Your task to perform on an android device: set default search engine in the chrome app Image 0: 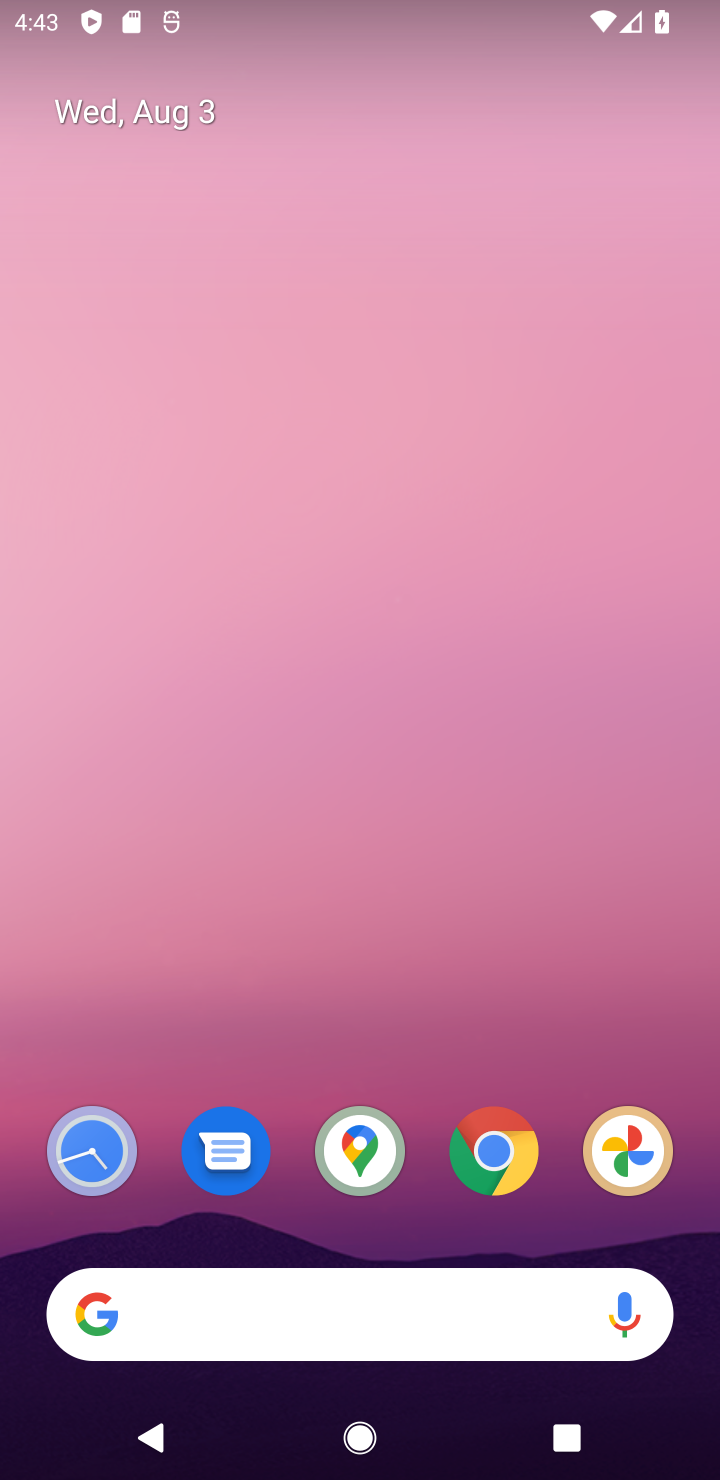
Step 0: click (322, 694)
Your task to perform on an android device: set default search engine in the chrome app Image 1: 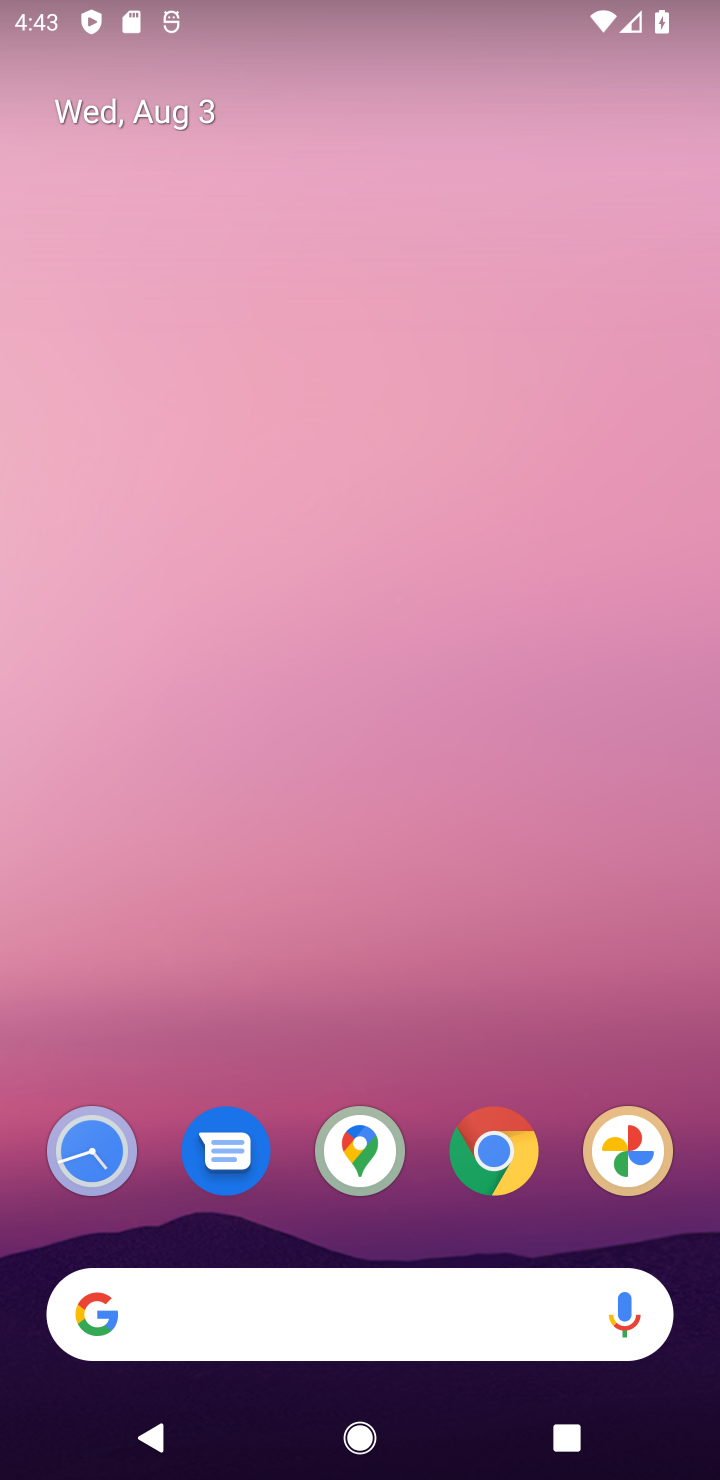
Step 1: drag from (425, 1334) to (342, 188)
Your task to perform on an android device: set default search engine in the chrome app Image 2: 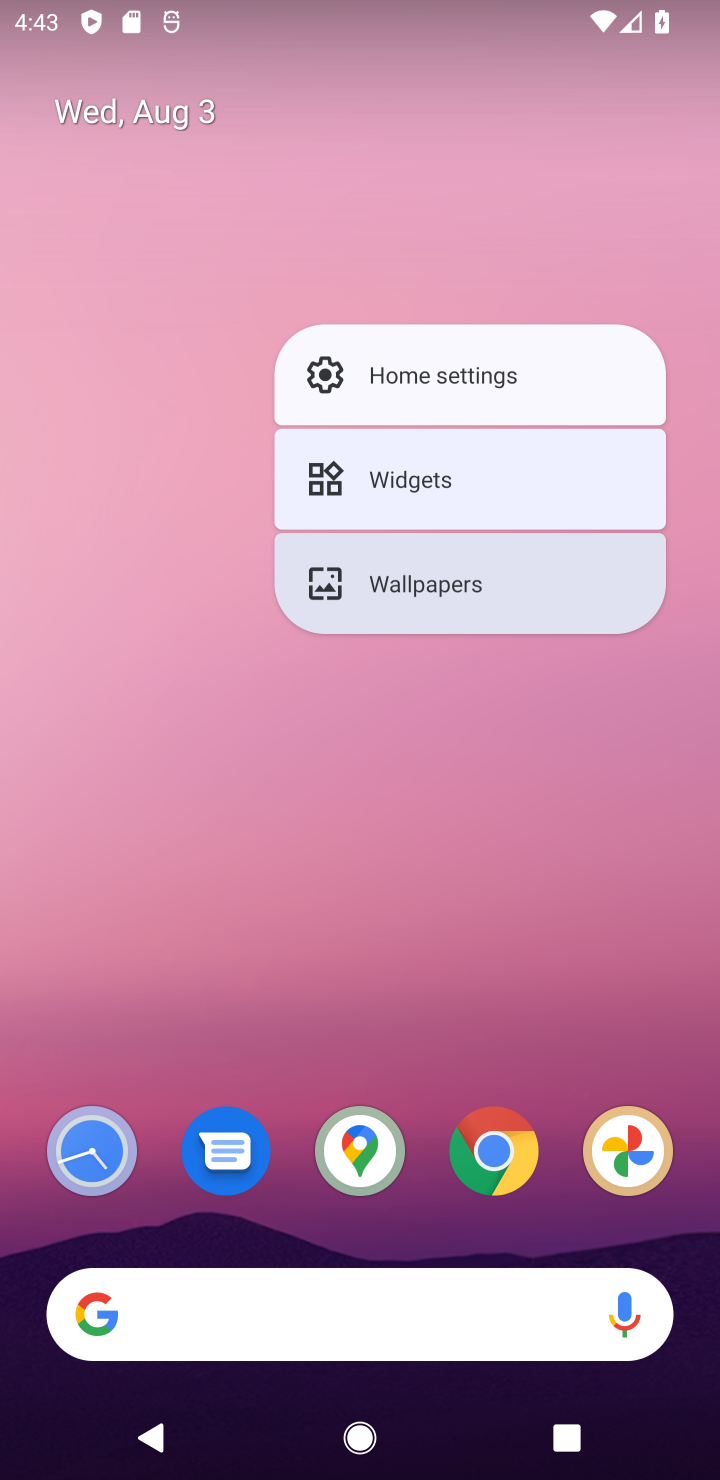
Step 2: drag from (361, 766) to (185, 38)
Your task to perform on an android device: set default search engine in the chrome app Image 3: 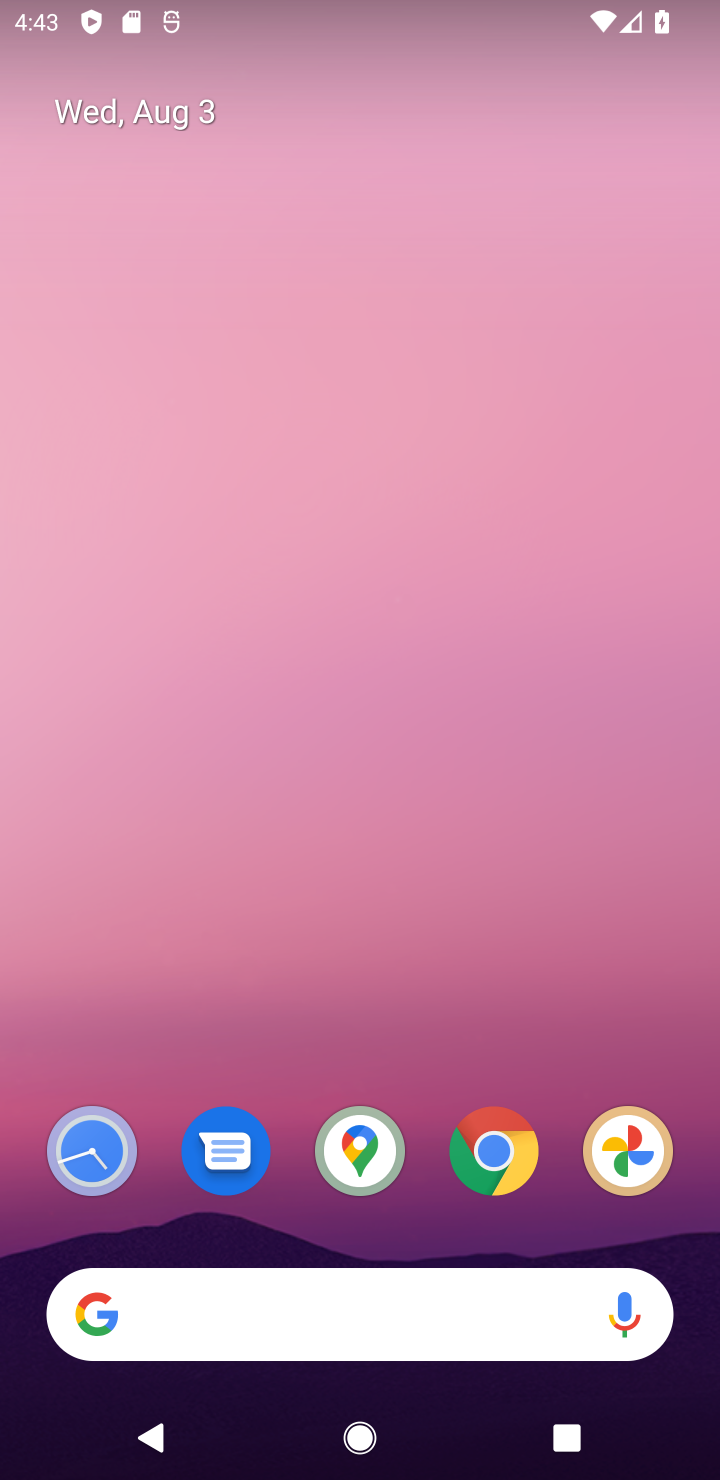
Step 3: click (349, 188)
Your task to perform on an android device: set default search engine in the chrome app Image 4: 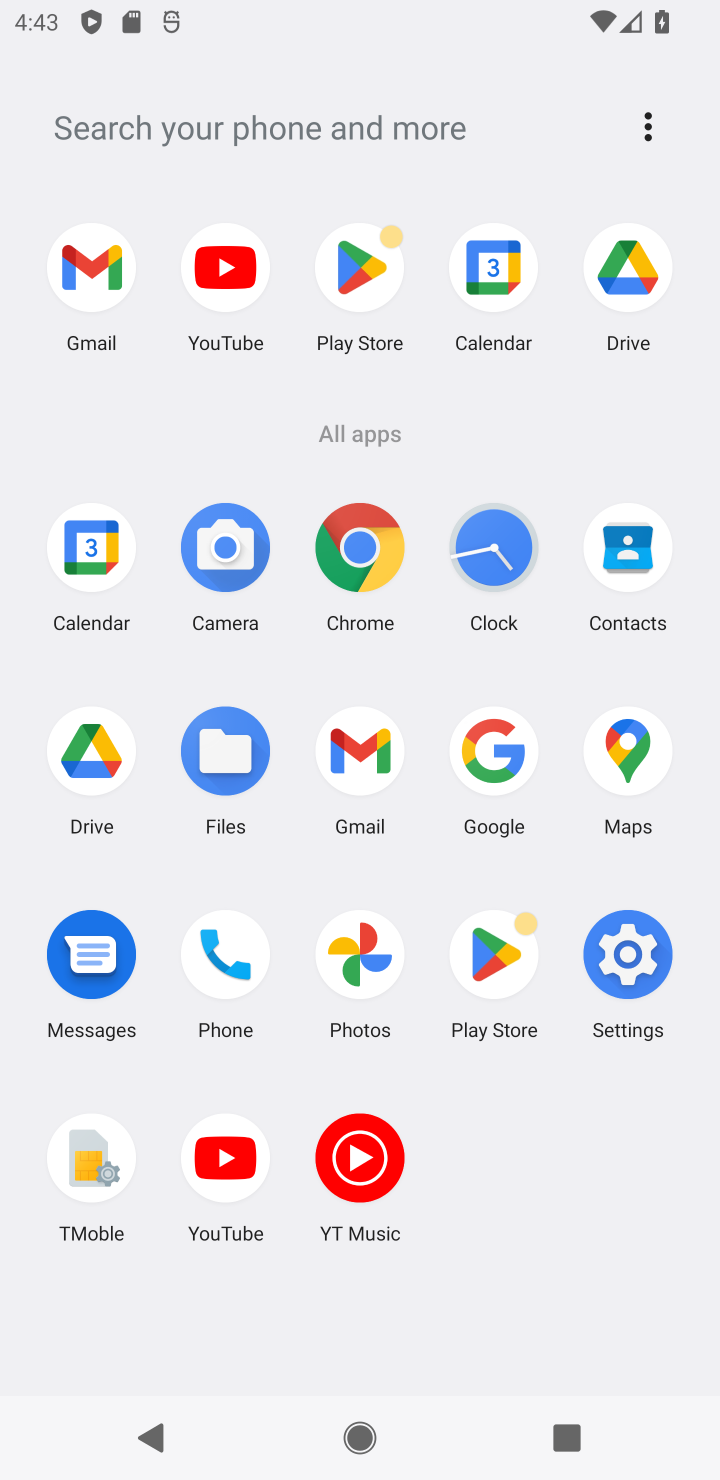
Step 4: click (339, 540)
Your task to perform on an android device: set default search engine in the chrome app Image 5: 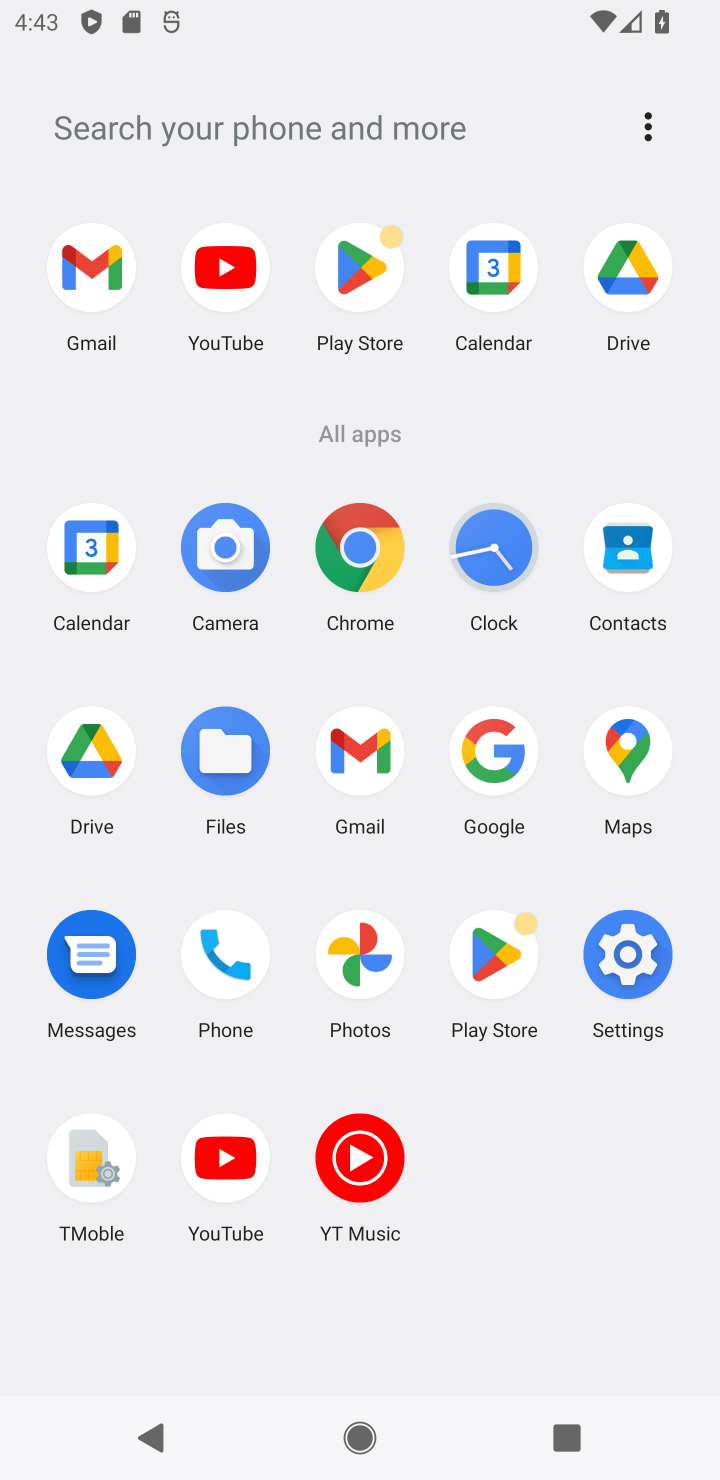
Step 5: click (366, 577)
Your task to perform on an android device: set default search engine in the chrome app Image 6: 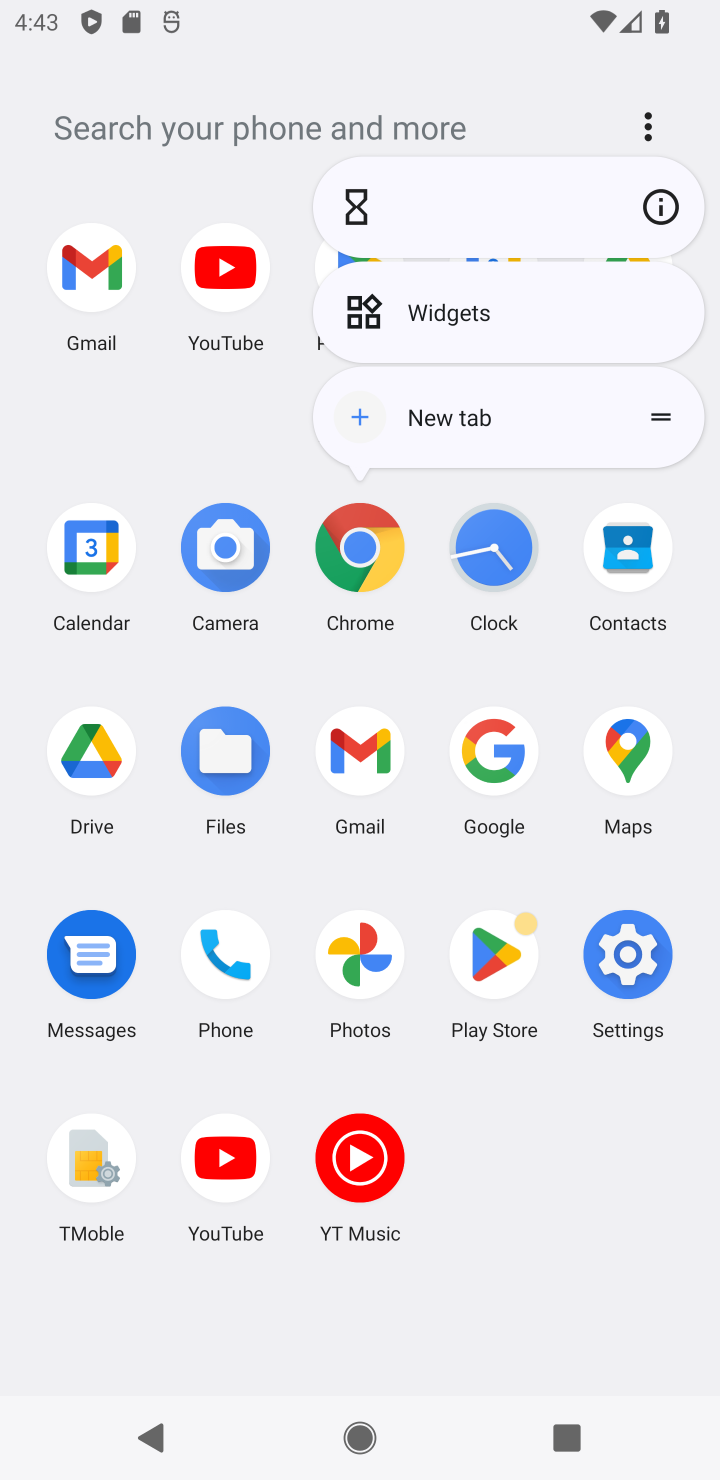
Step 6: click (368, 548)
Your task to perform on an android device: set default search engine in the chrome app Image 7: 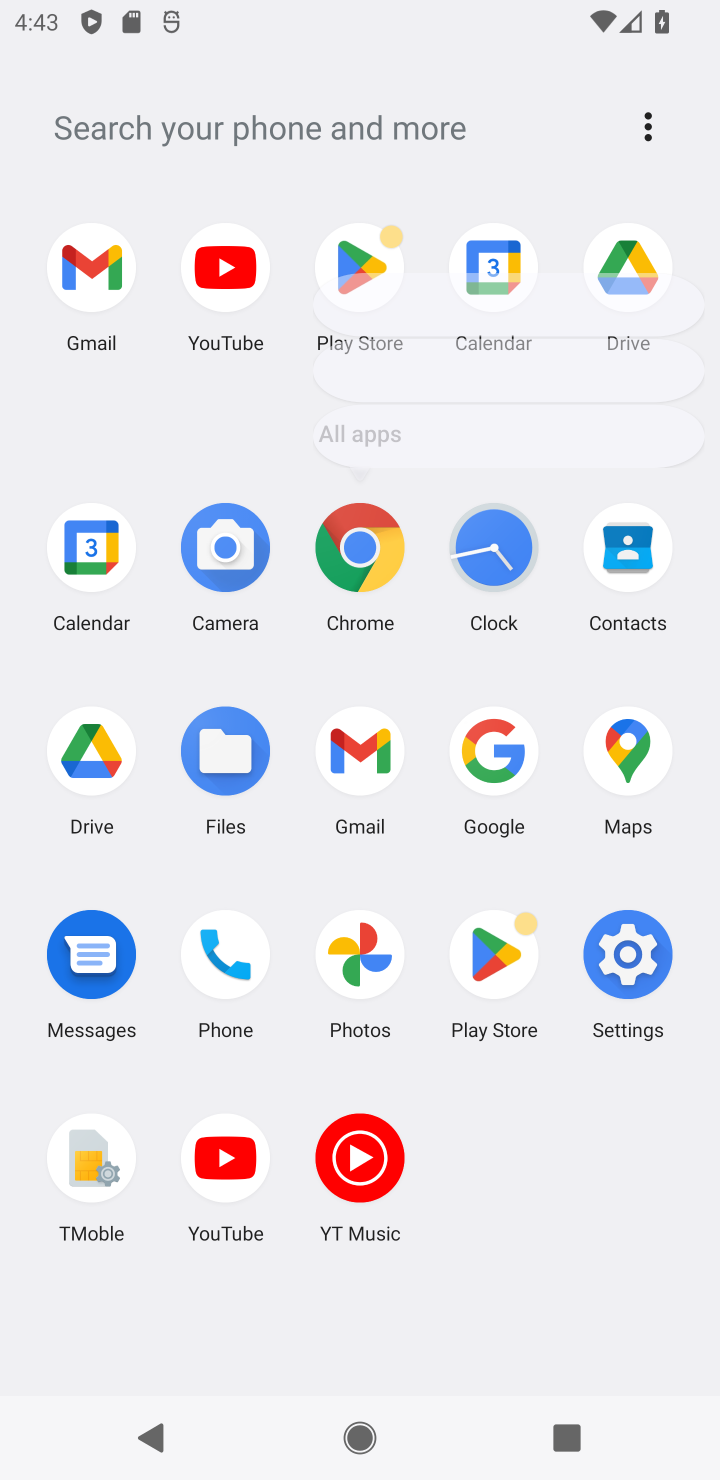
Step 7: click (370, 542)
Your task to perform on an android device: set default search engine in the chrome app Image 8: 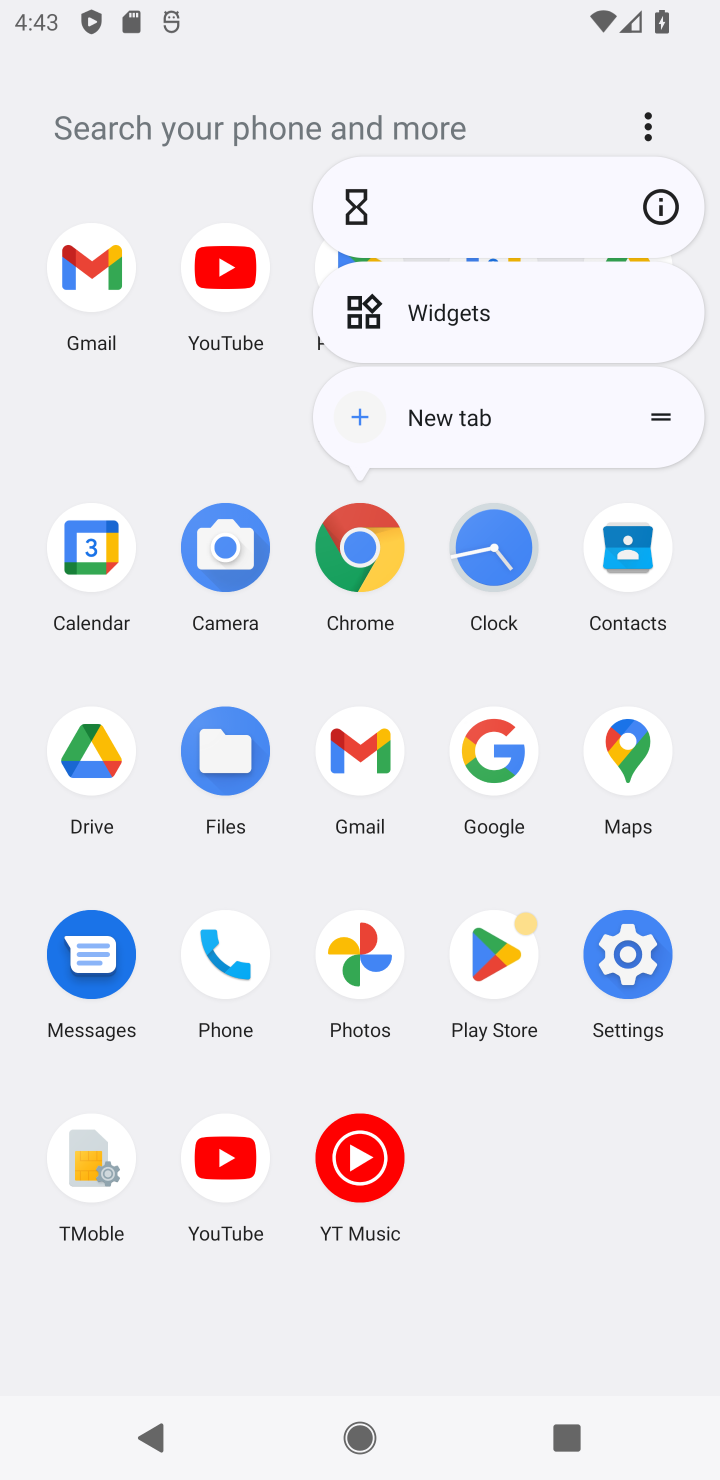
Step 8: click (370, 542)
Your task to perform on an android device: set default search engine in the chrome app Image 9: 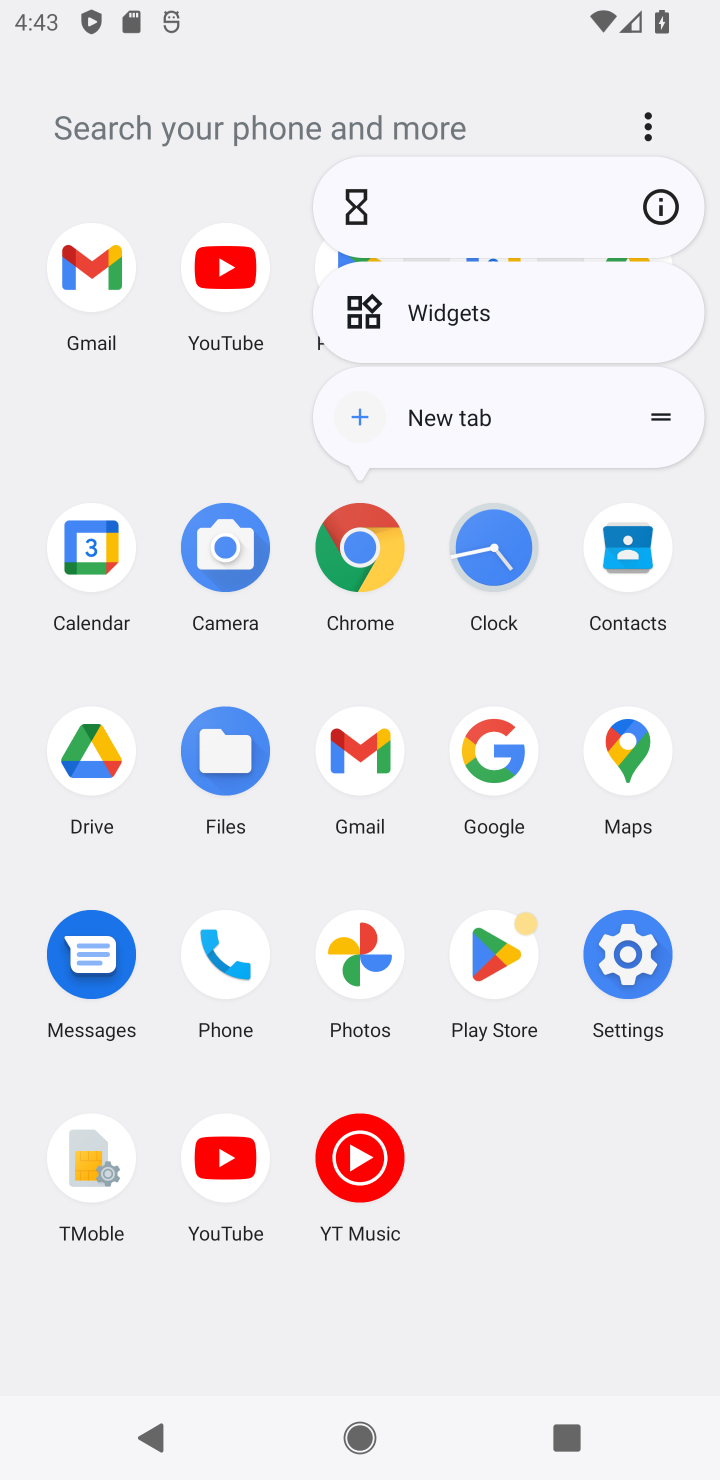
Step 9: click (423, 404)
Your task to perform on an android device: set default search engine in the chrome app Image 10: 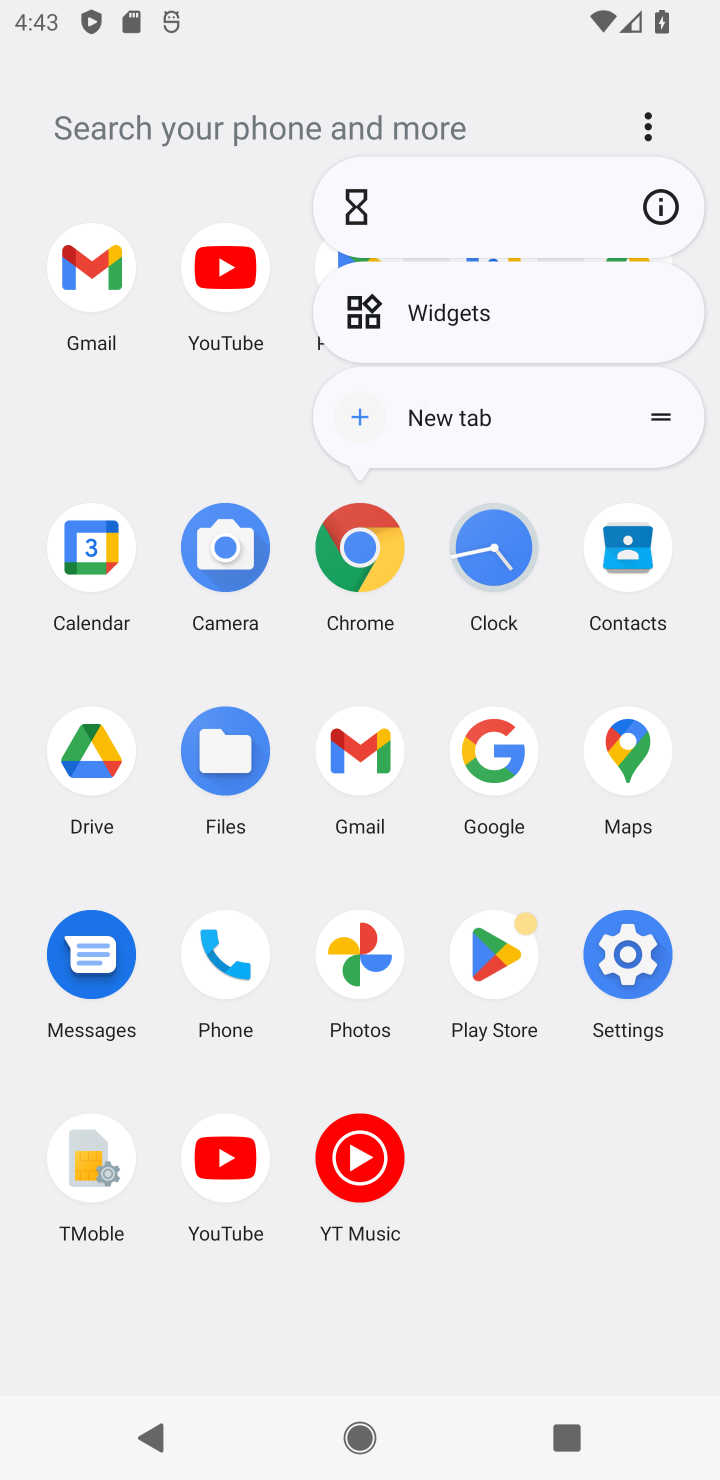
Step 10: click (454, 418)
Your task to perform on an android device: set default search engine in the chrome app Image 11: 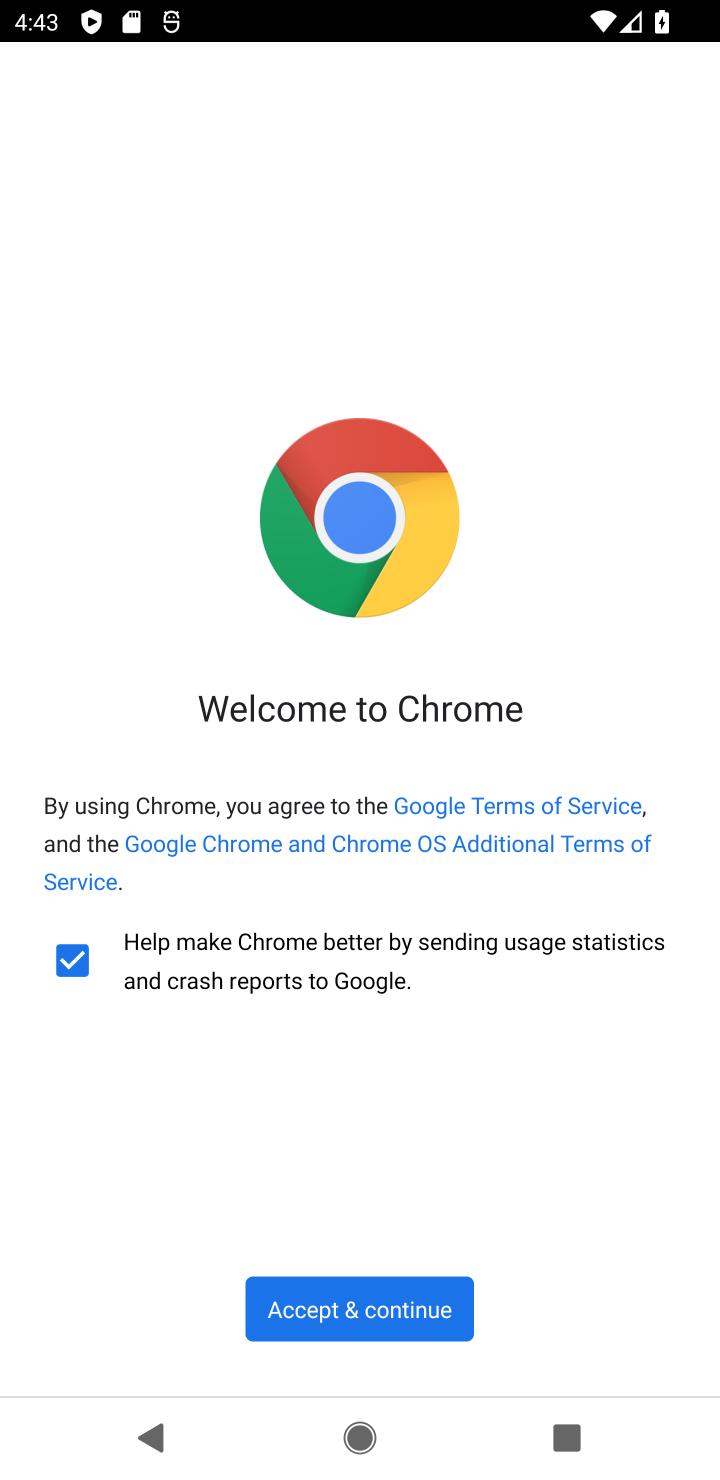
Step 11: click (413, 1313)
Your task to perform on an android device: set default search engine in the chrome app Image 12: 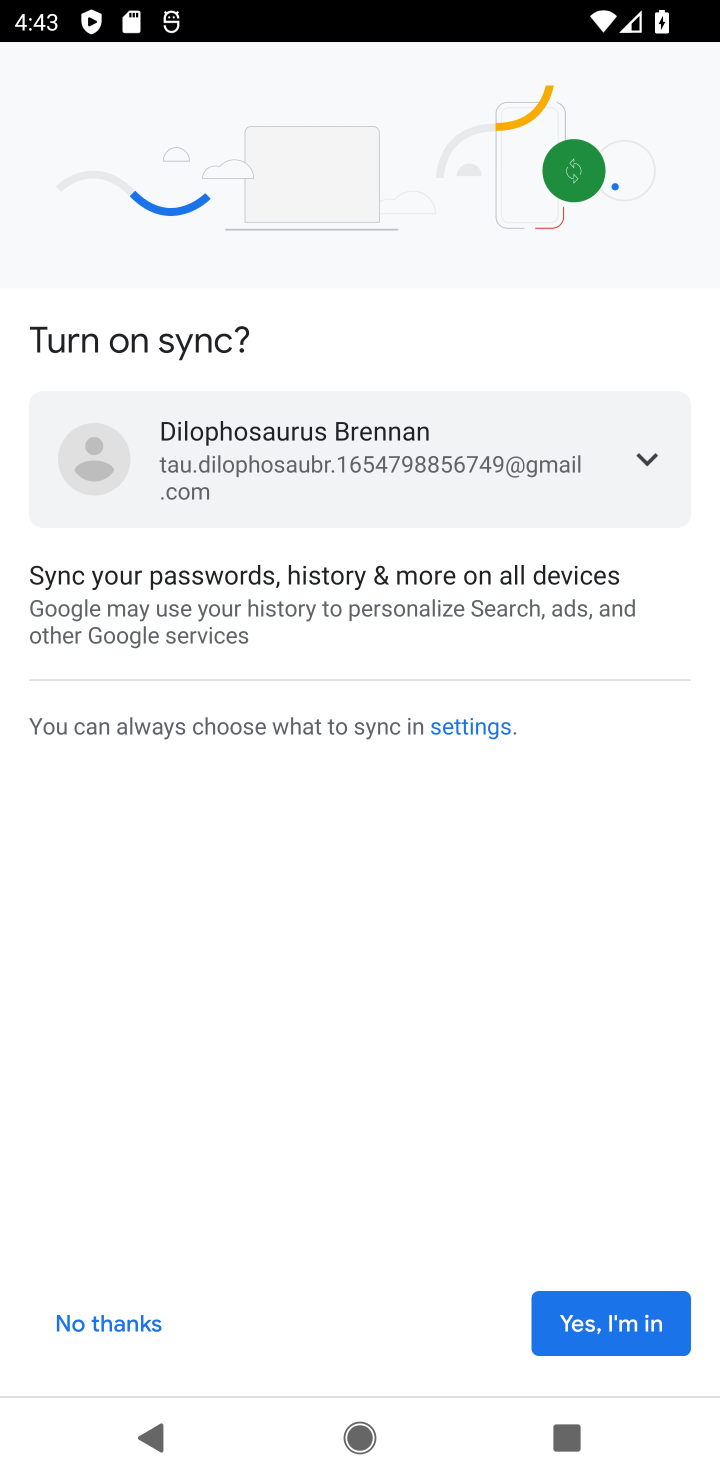
Step 12: click (99, 1322)
Your task to perform on an android device: set default search engine in the chrome app Image 13: 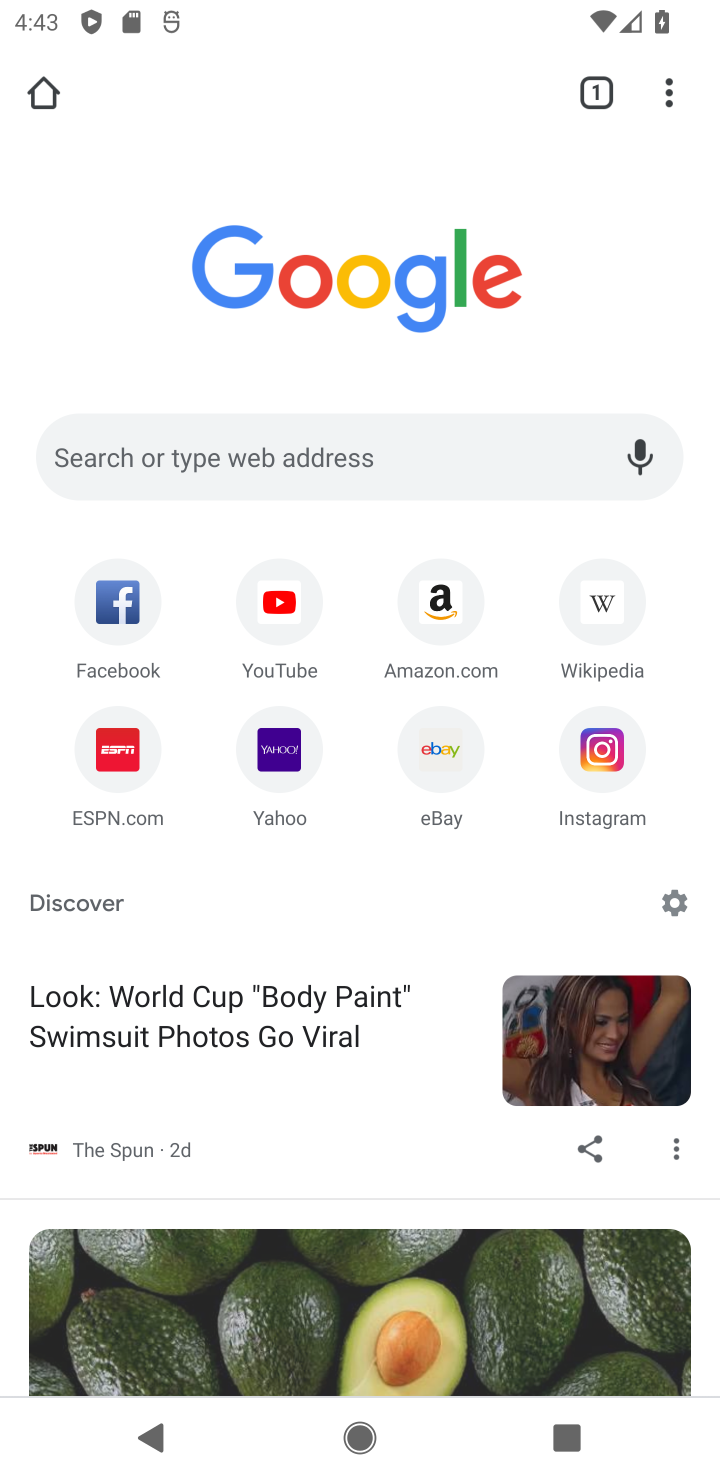
Step 13: click (660, 82)
Your task to perform on an android device: set default search engine in the chrome app Image 14: 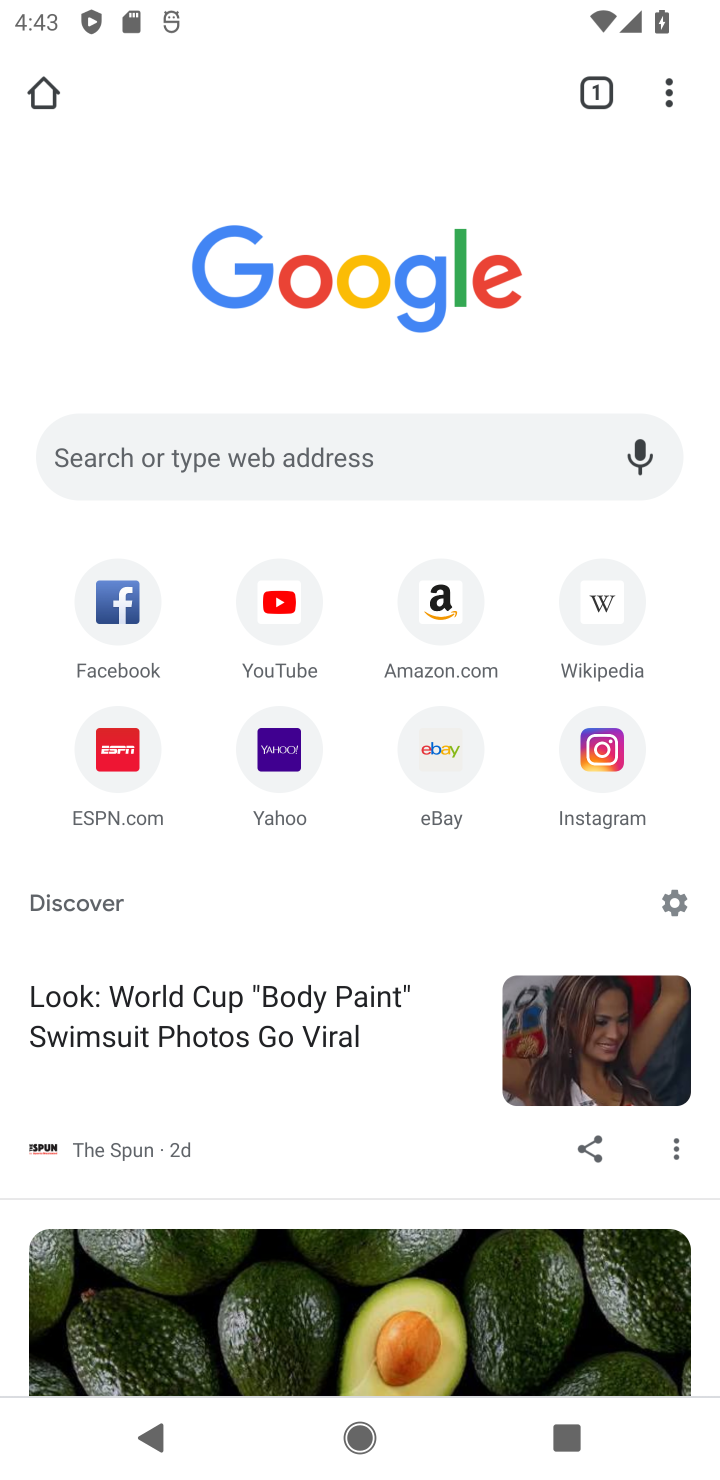
Step 14: click (667, 87)
Your task to perform on an android device: set default search engine in the chrome app Image 15: 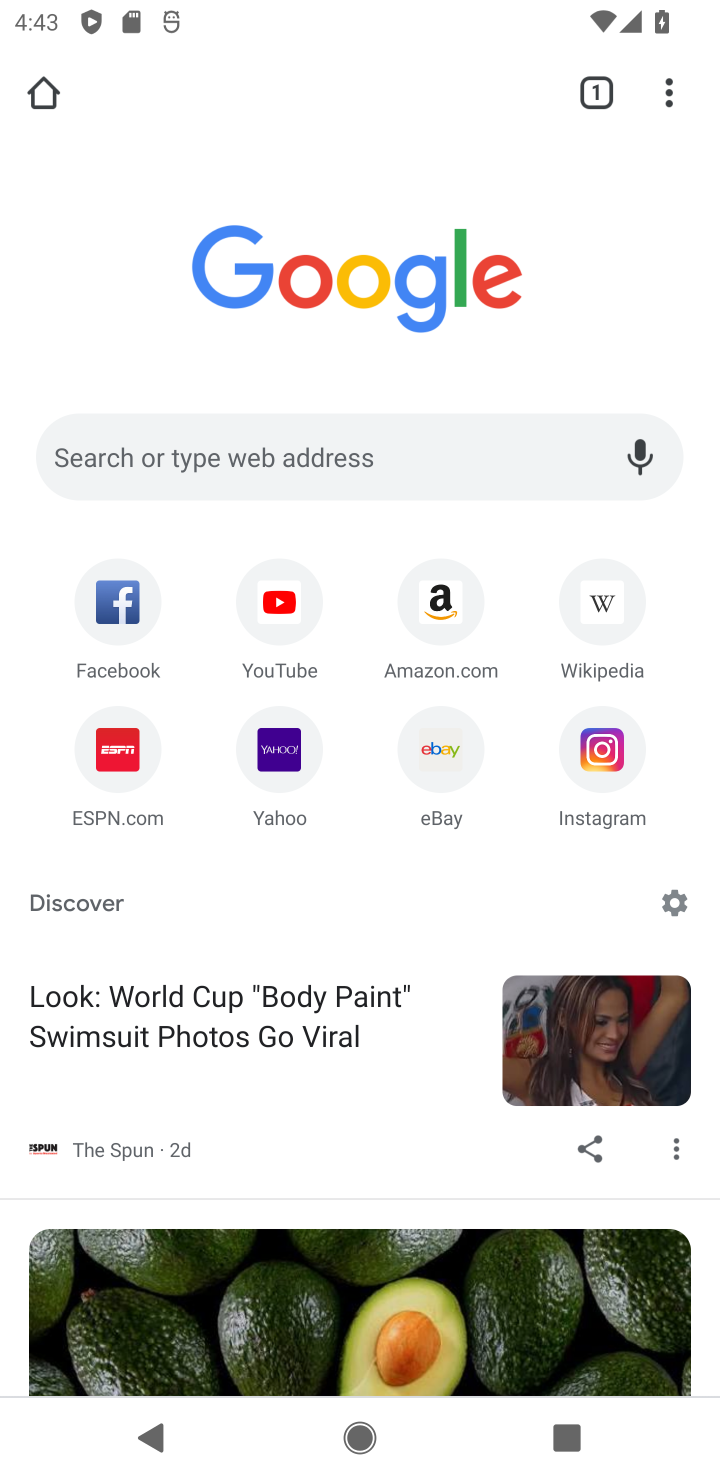
Step 15: drag from (673, 87) to (448, 854)
Your task to perform on an android device: set default search engine in the chrome app Image 16: 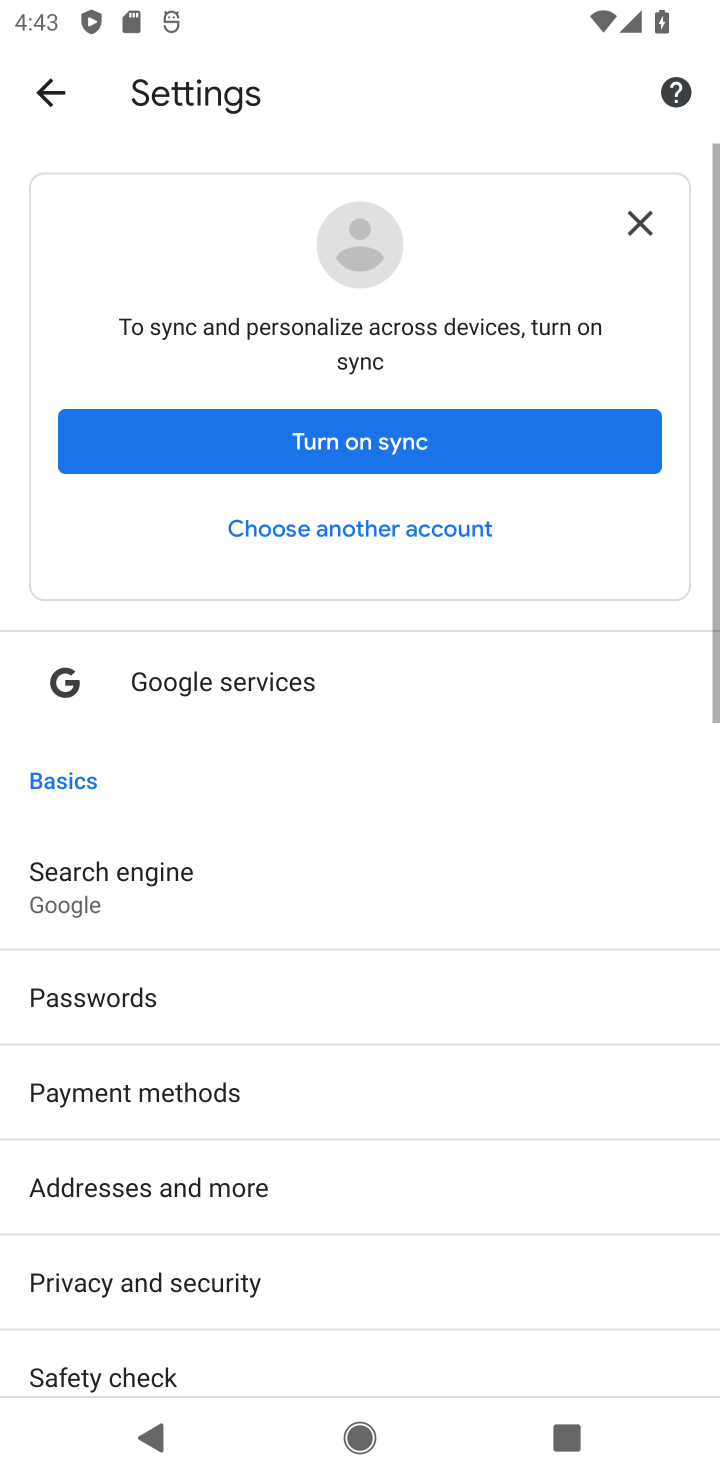
Step 16: drag from (258, 1039) to (255, 544)
Your task to perform on an android device: set default search engine in the chrome app Image 17: 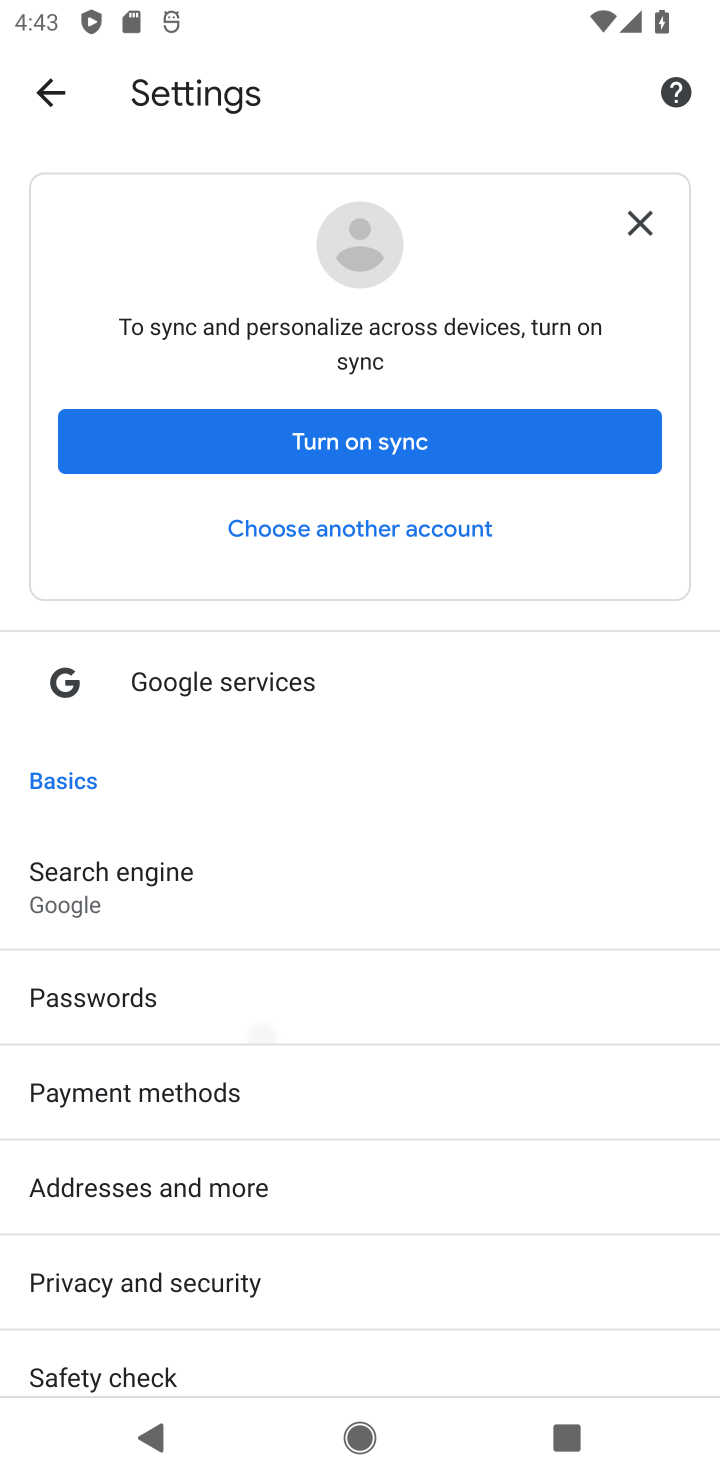
Step 17: drag from (292, 1109) to (333, 527)
Your task to perform on an android device: set default search engine in the chrome app Image 18: 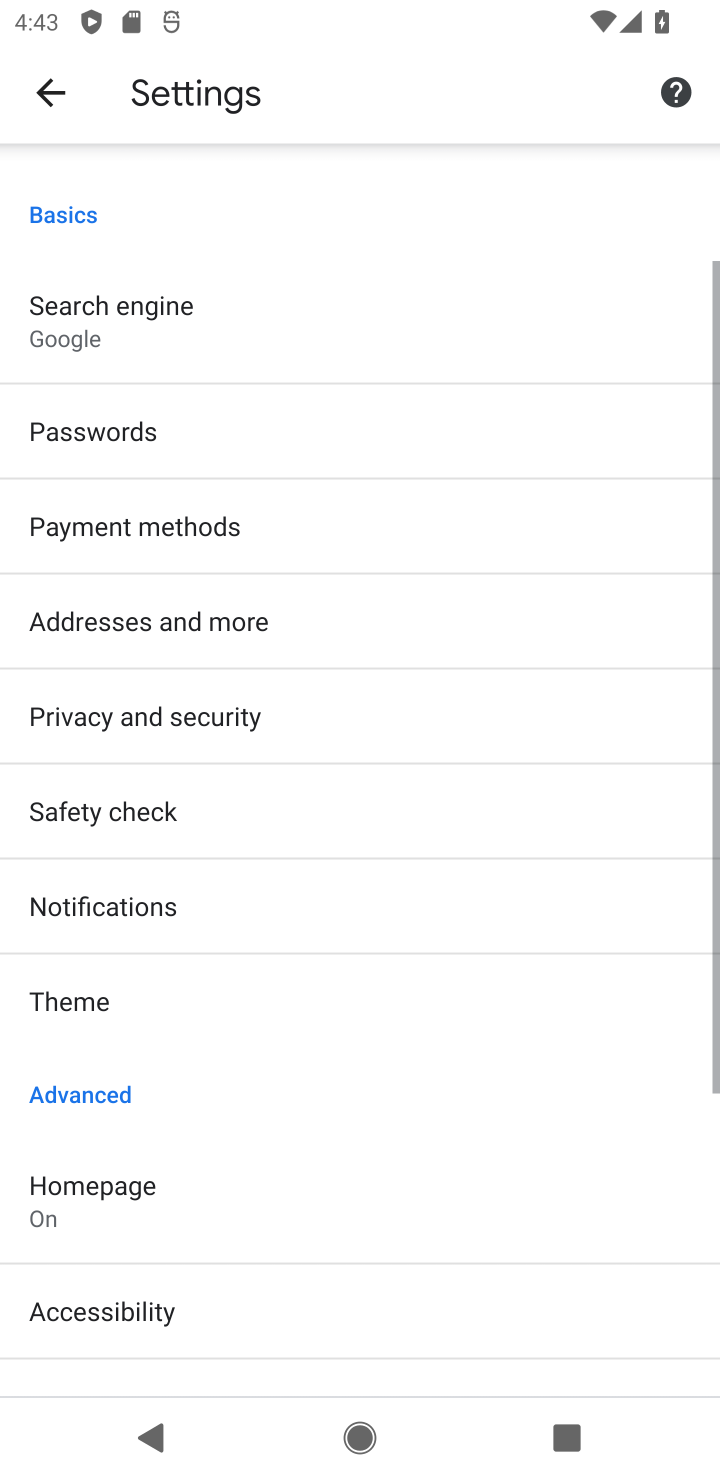
Step 18: click (633, 205)
Your task to perform on an android device: set default search engine in the chrome app Image 19: 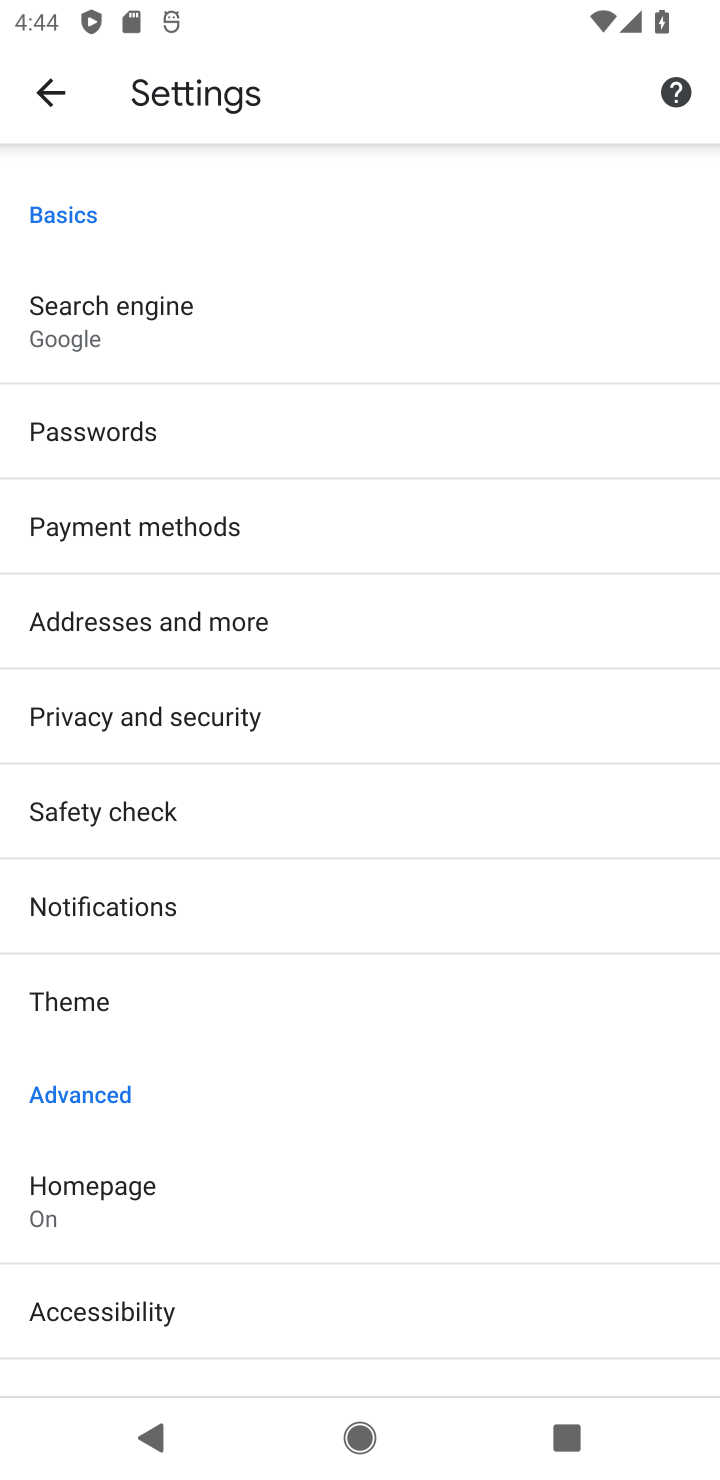
Step 19: click (80, 321)
Your task to perform on an android device: set default search engine in the chrome app Image 20: 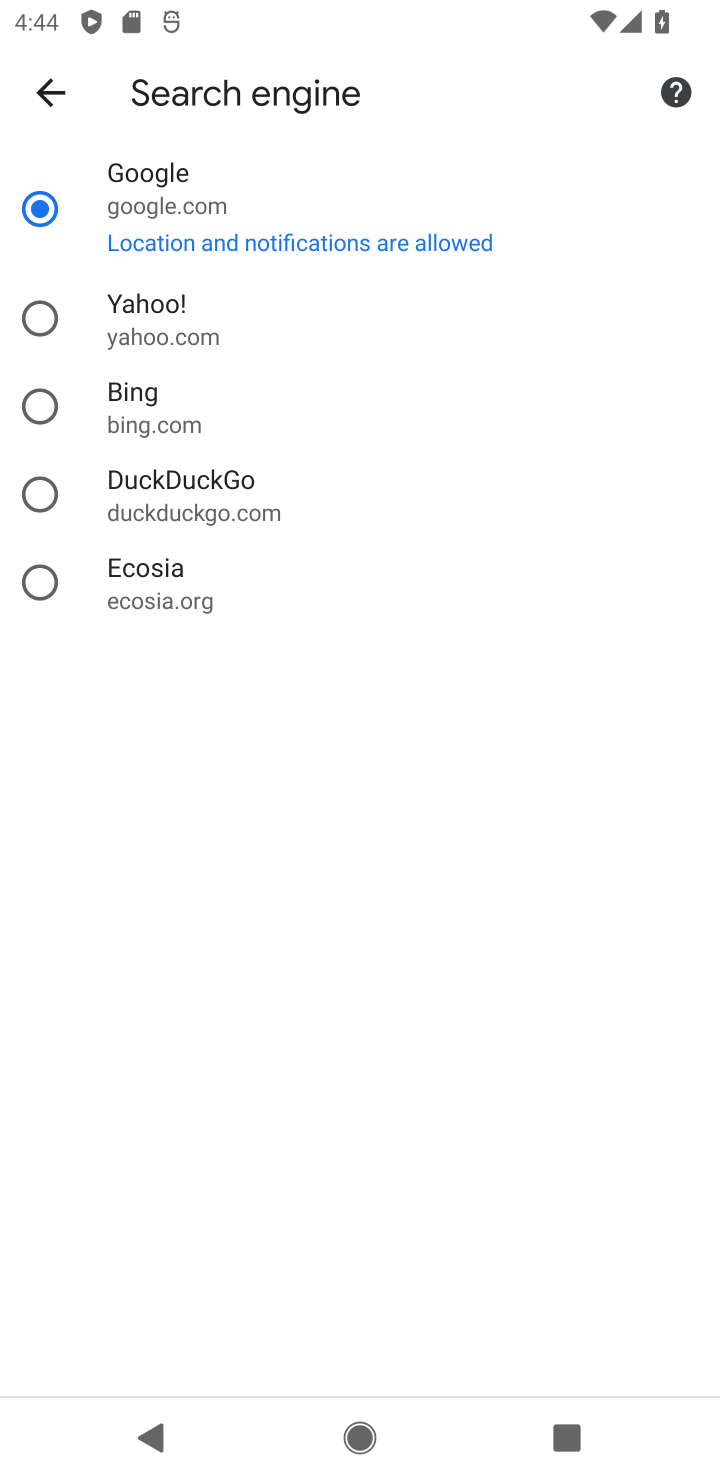
Step 20: click (50, 313)
Your task to perform on an android device: set default search engine in the chrome app Image 21: 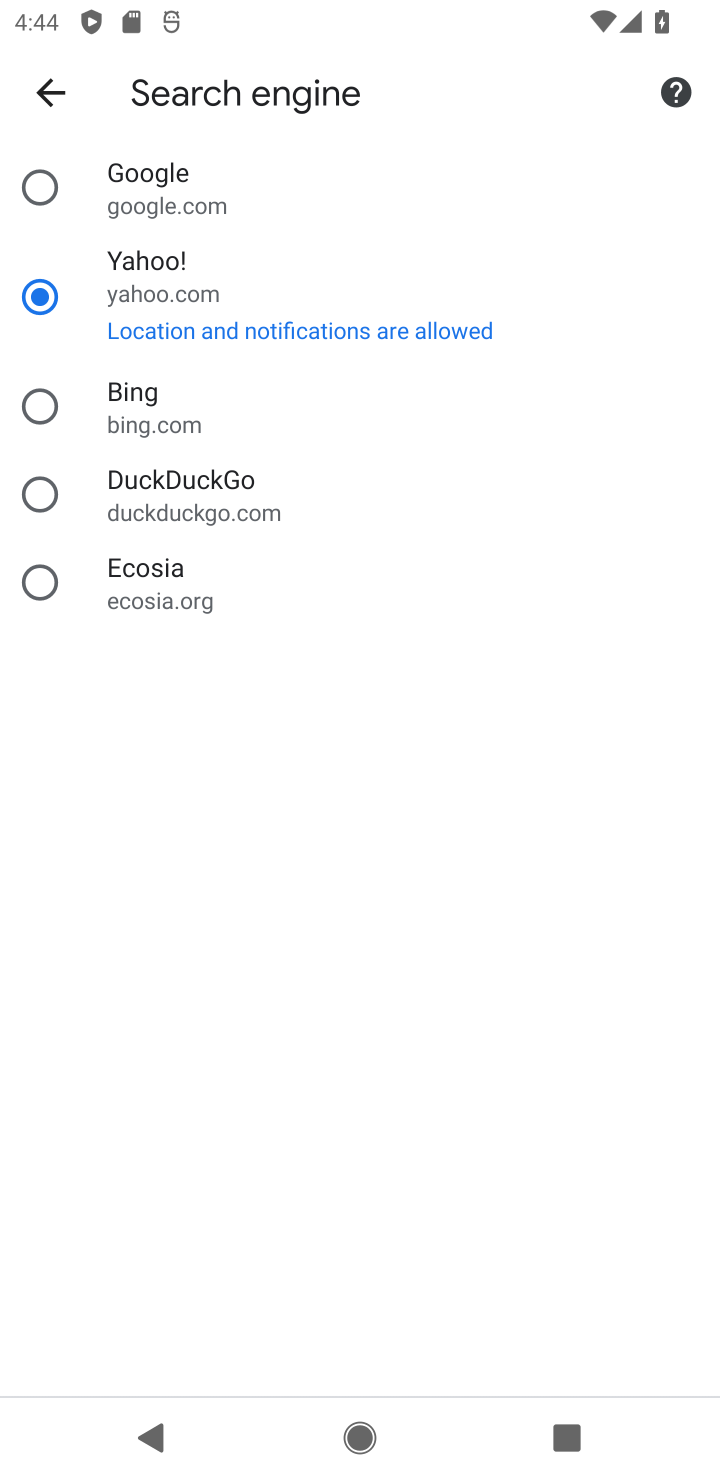
Step 21: task complete